Your task to perform on an android device: open chrome and create a bookmark for the current page Image 0: 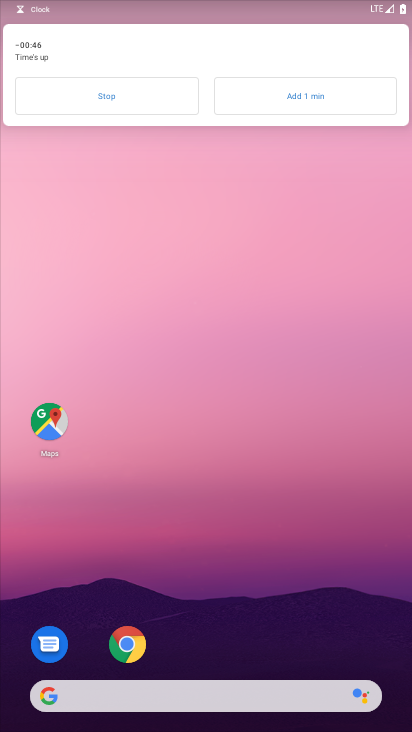
Step 0: click (126, 646)
Your task to perform on an android device: open chrome and create a bookmark for the current page Image 1: 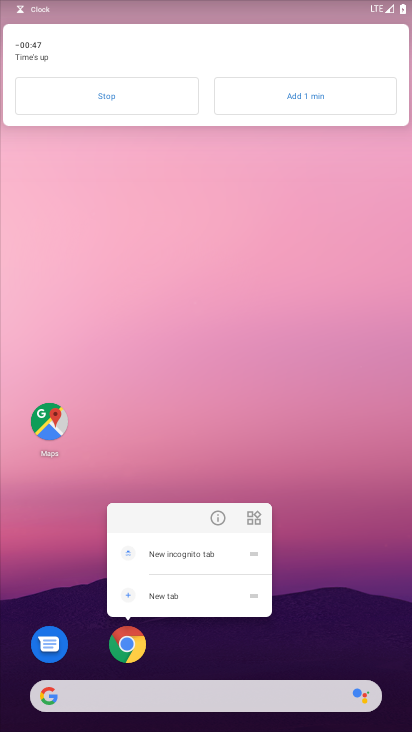
Step 1: click (126, 646)
Your task to perform on an android device: open chrome and create a bookmark for the current page Image 2: 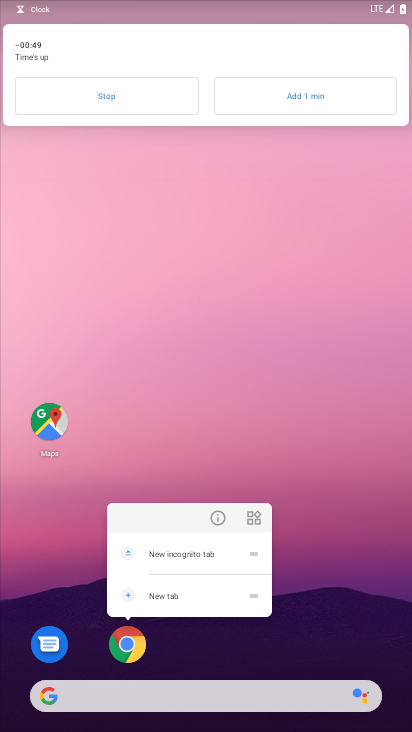
Step 2: click (126, 646)
Your task to perform on an android device: open chrome and create a bookmark for the current page Image 3: 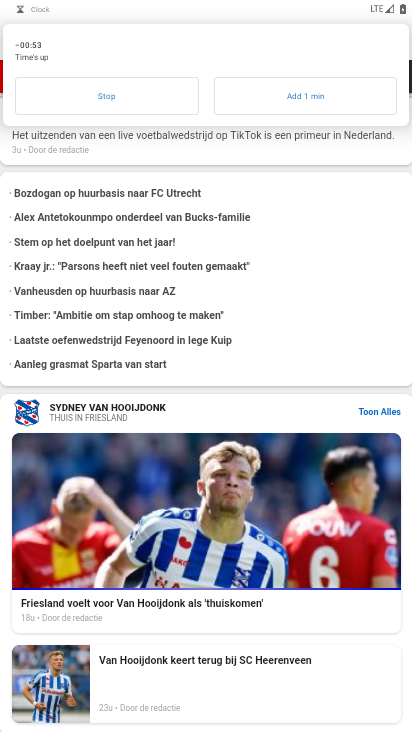
Step 3: click (100, 92)
Your task to perform on an android device: open chrome and create a bookmark for the current page Image 4: 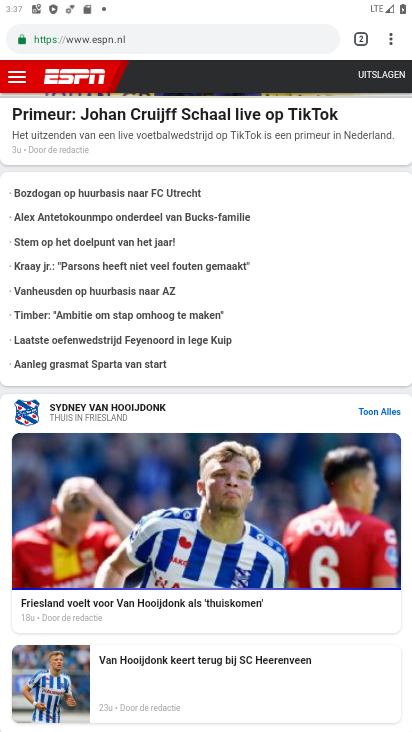
Step 4: click (391, 45)
Your task to perform on an android device: open chrome and create a bookmark for the current page Image 5: 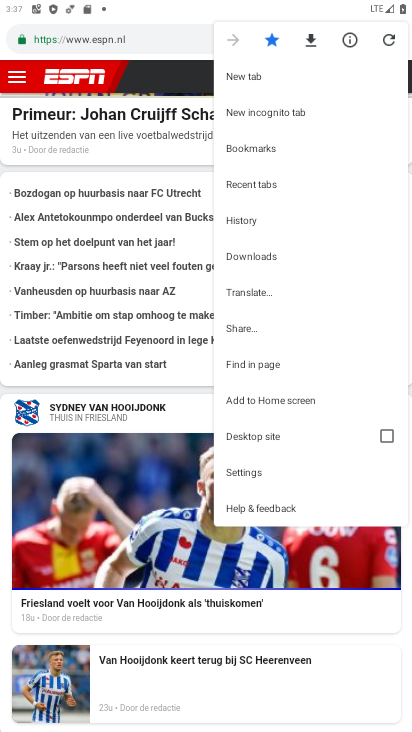
Step 5: task complete